Your task to perform on an android device: Open Chrome and go to settings Image 0: 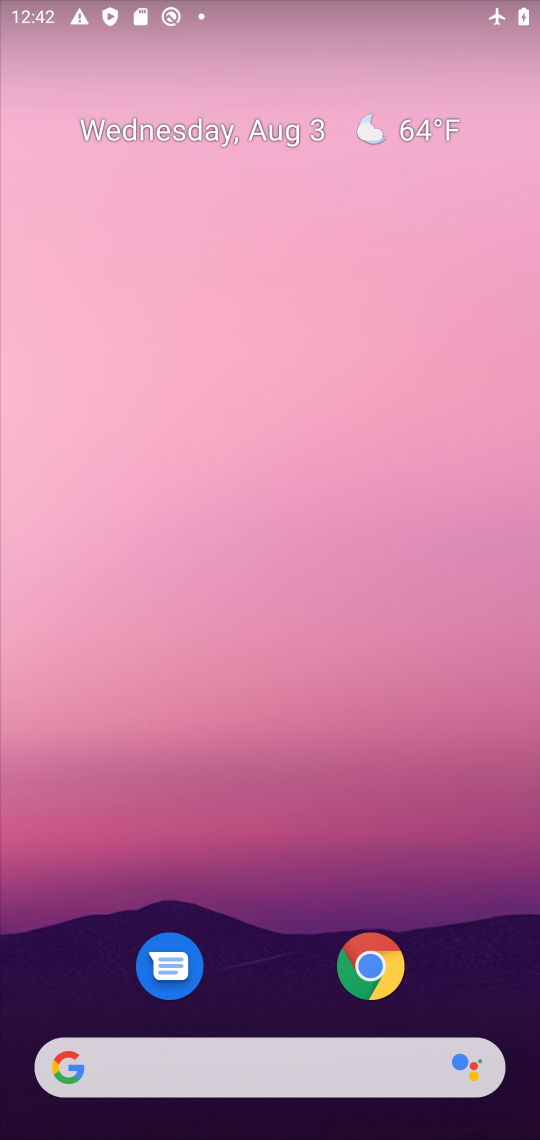
Step 0: click (360, 956)
Your task to perform on an android device: Open Chrome and go to settings Image 1: 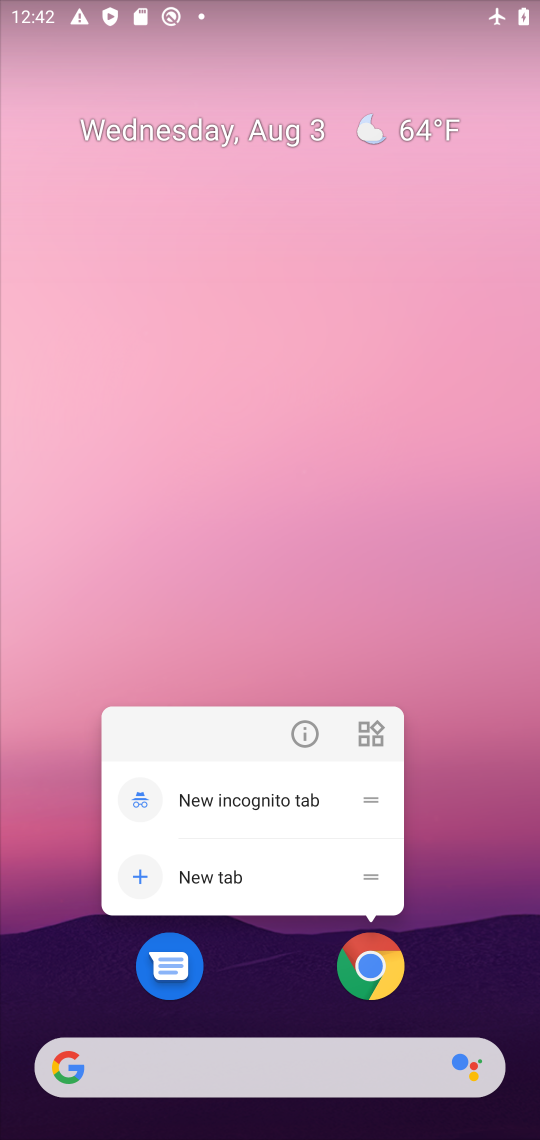
Step 1: click (356, 967)
Your task to perform on an android device: Open Chrome and go to settings Image 2: 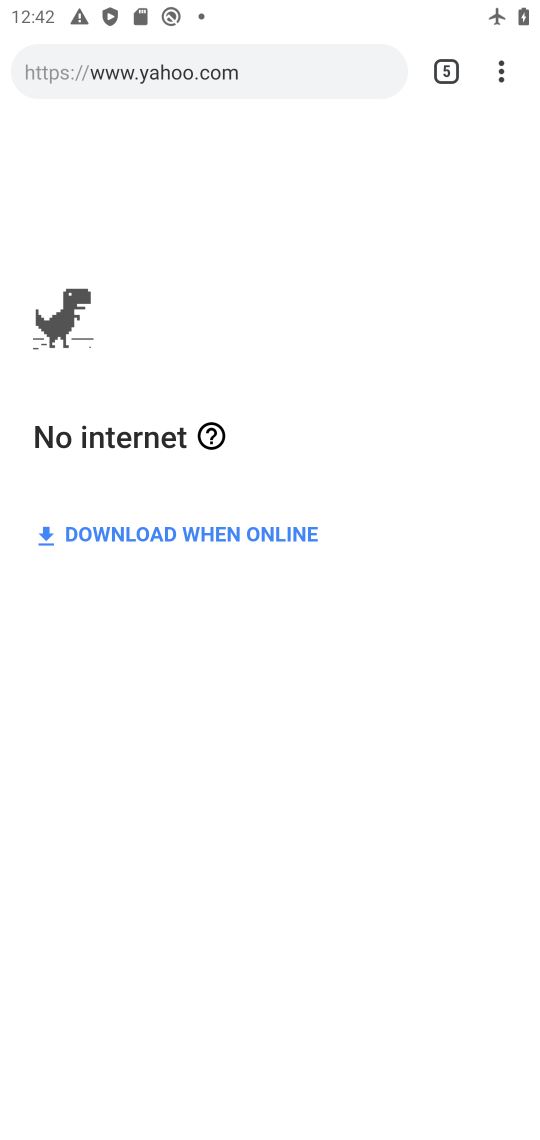
Step 2: click (498, 68)
Your task to perform on an android device: Open Chrome and go to settings Image 3: 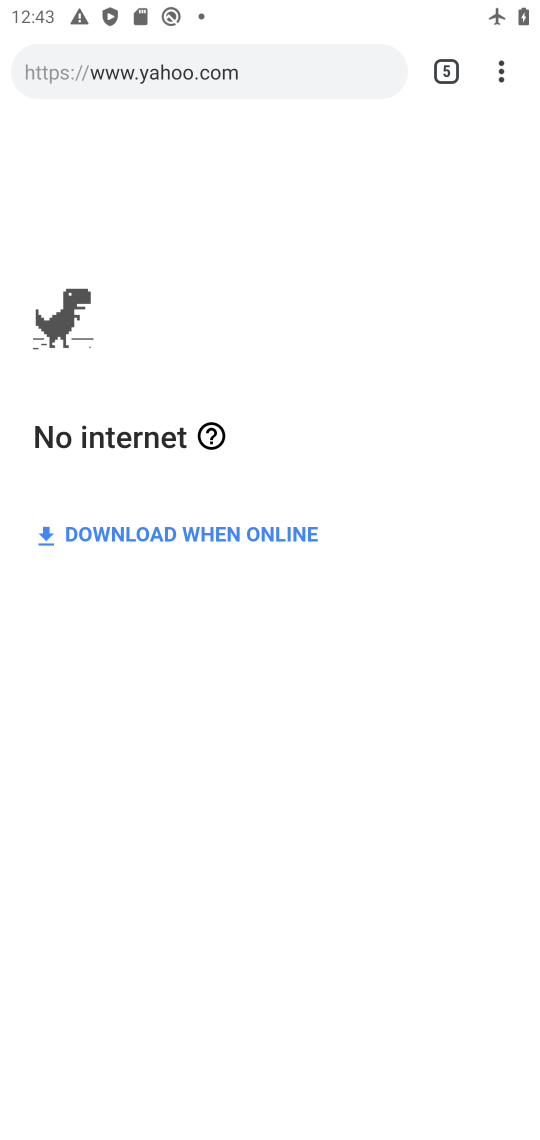
Step 3: task complete